Your task to perform on an android device: Open location settings Image 0: 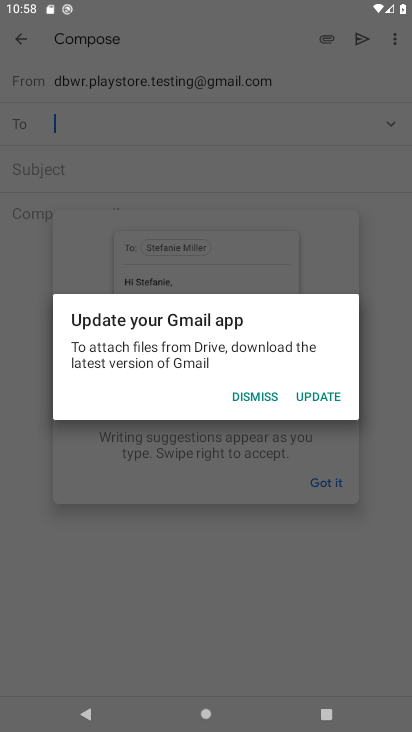
Step 0: press home button
Your task to perform on an android device: Open location settings Image 1: 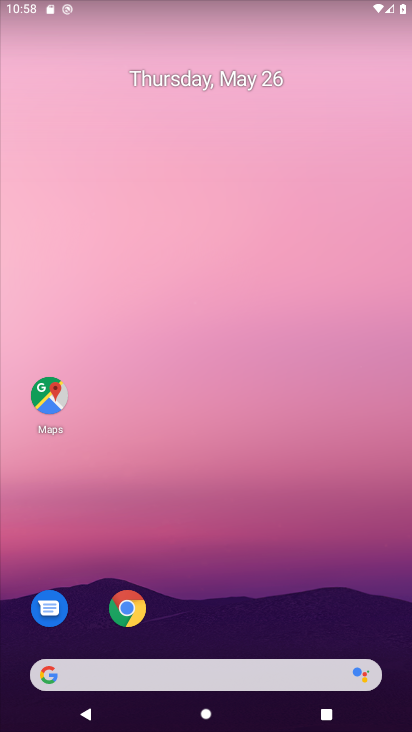
Step 1: drag from (364, 501) to (312, 226)
Your task to perform on an android device: Open location settings Image 2: 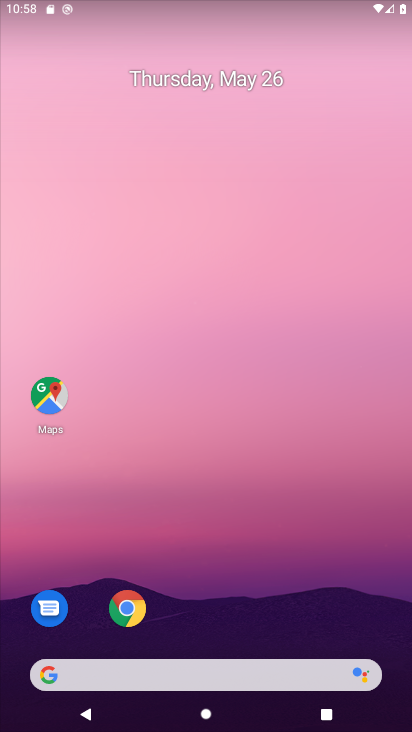
Step 2: drag from (391, 705) to (314, 217)
Your task to perform on an android device: Open location settings Image 3: 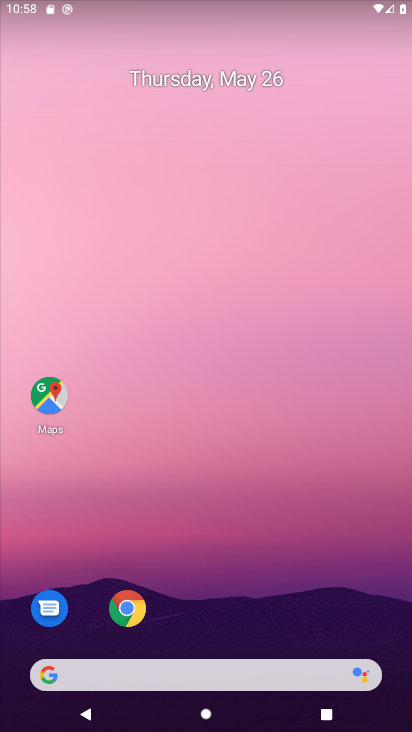
Step 3: drag from (390, 719) to (327, 83)
Your task to perform on an android device: Open location settings Image 4: 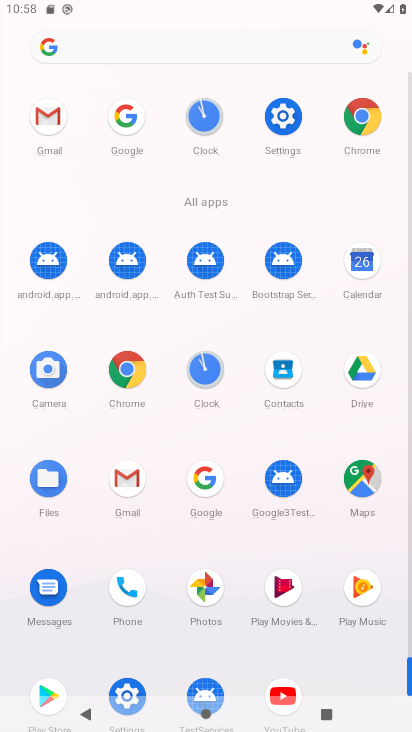
Step 4: click (273, 127)
Your task to perform on an android device: Open location settings Image 5: 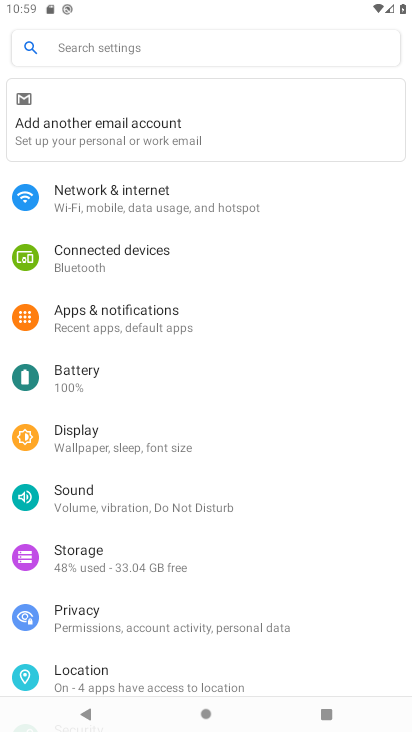
Step 5: drag from (282, 680) to (242, 273)
Your task to perform on an android device: Open location settings Image 6: 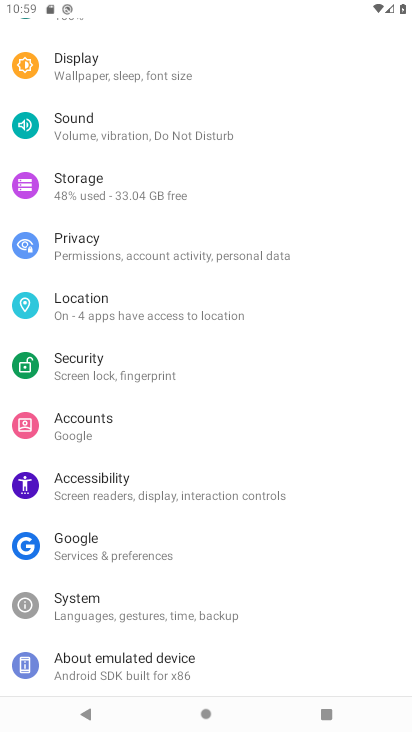
Step 6: click (72, 306)
Your task to perform on an android device: Open location settings Image 7: 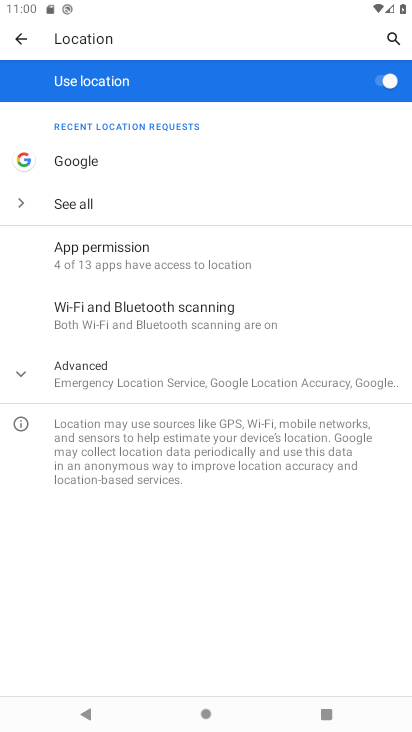
Step 7: task complete